Your task to perform on an android device: turn notification dots off Image 0: 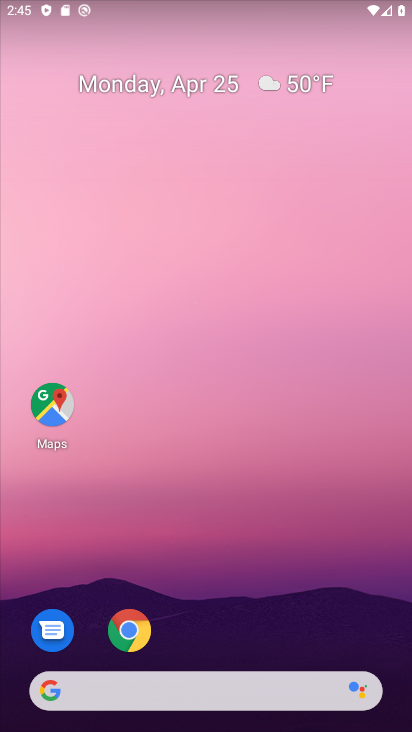
Step 0: press home button
Your task to perform on an android device: turn notification dots off Image 1: 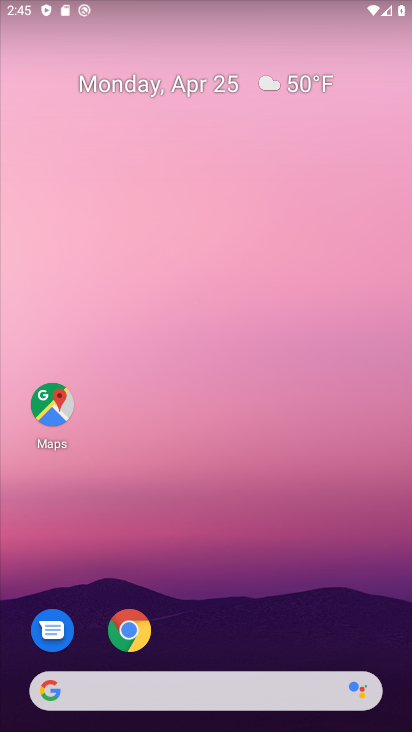
Step 1: drag from (217, 640) to (100, 88)
Your task to perform on an android device: turn notification dots off Image 2: 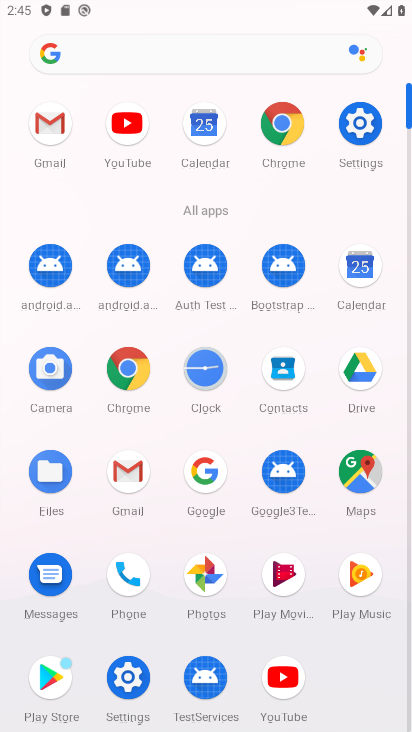
Step 2: click (365, 132)
Your task to perform on an android device: turn notification dots off Image 3: 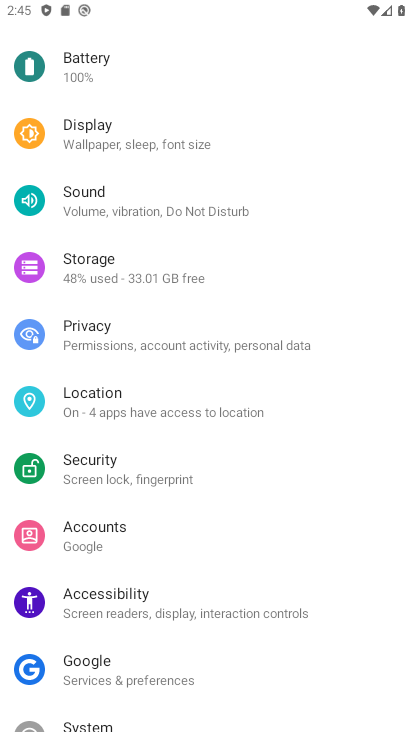
Step 3: click (197, 688)
Your task to perform on an android device: turn notification dots off Image 4: 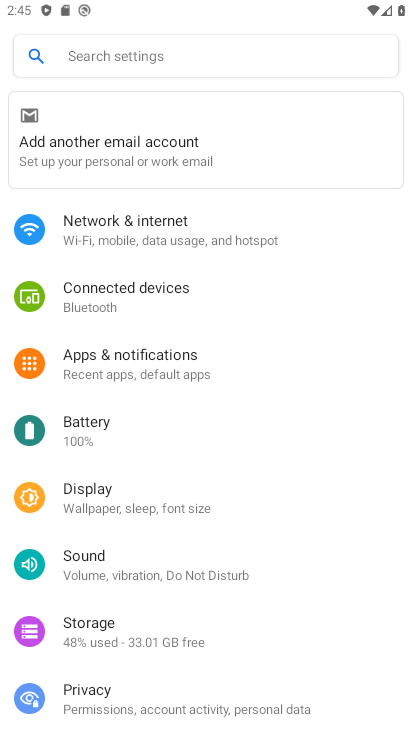
Step 4: click (177, 362)
Your task to perform on an android device: turn notification dots off Image 5: 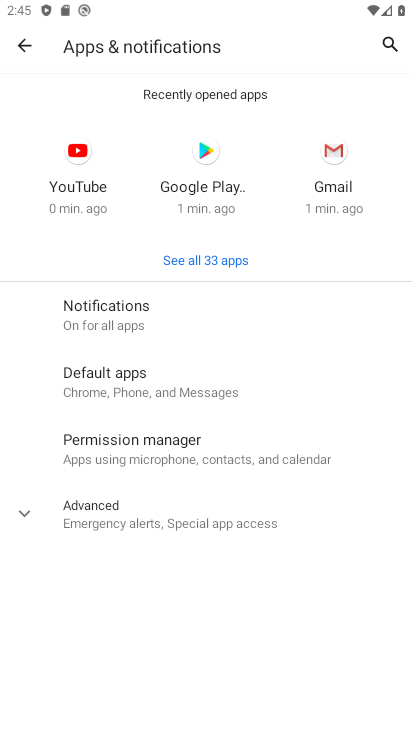
Step 5: click (112, 318)
Your task to perform on an android device: turn notification dots off Image 6: 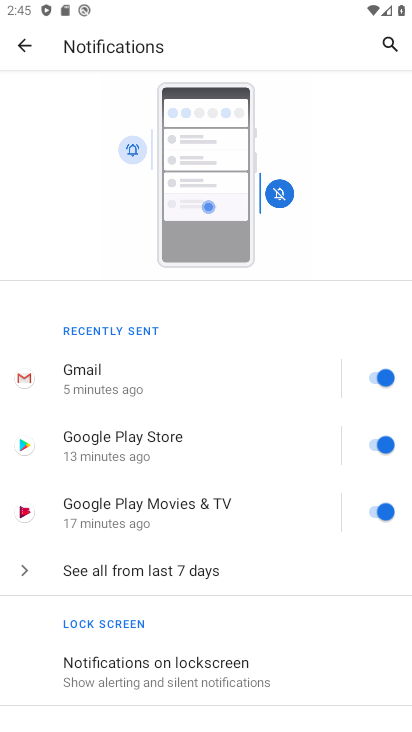
Step 6: drag from (163, 615) to (163, 179)
Your task to perform on an android device: turn notification dots off Image 7: 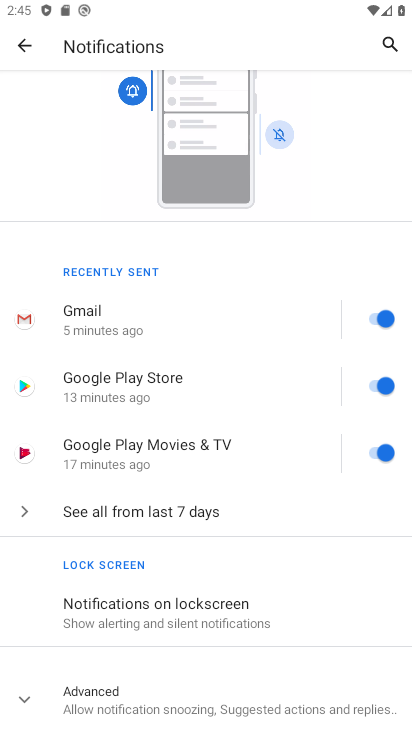
Step 7: click (138, 695)
Your task to perform on an android device: turn notification dots off Image 8: 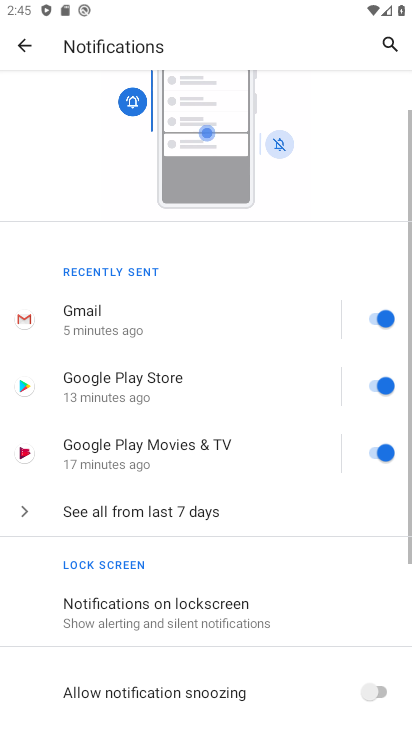
Step 8: drag from (138, 695) to (137, 188)
Your task to perform on an android device: turn notification dots off Image 9: 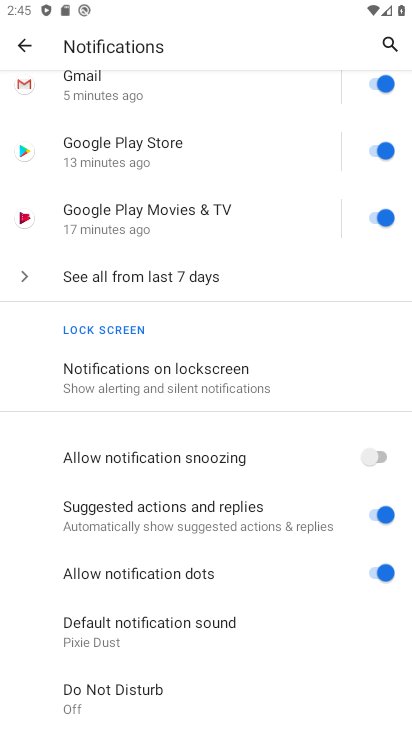
Step 9: click (384, 568)
Your task to perform on an android device: turn notification dots off Image 10: 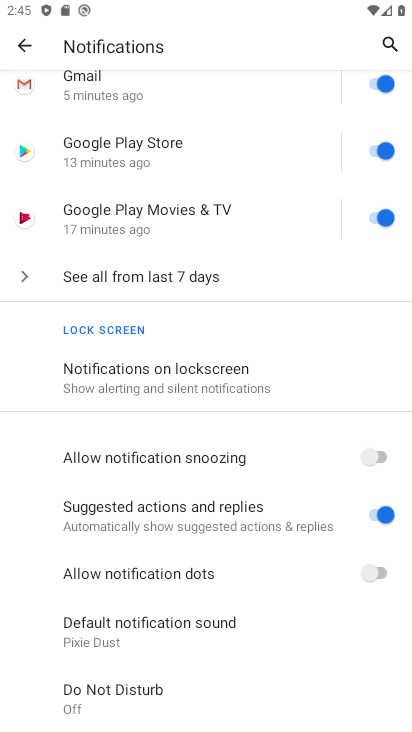
Step 10: task complete